Your task to perform on an android device: Search for Mexican restaurants on Maps Image 0: 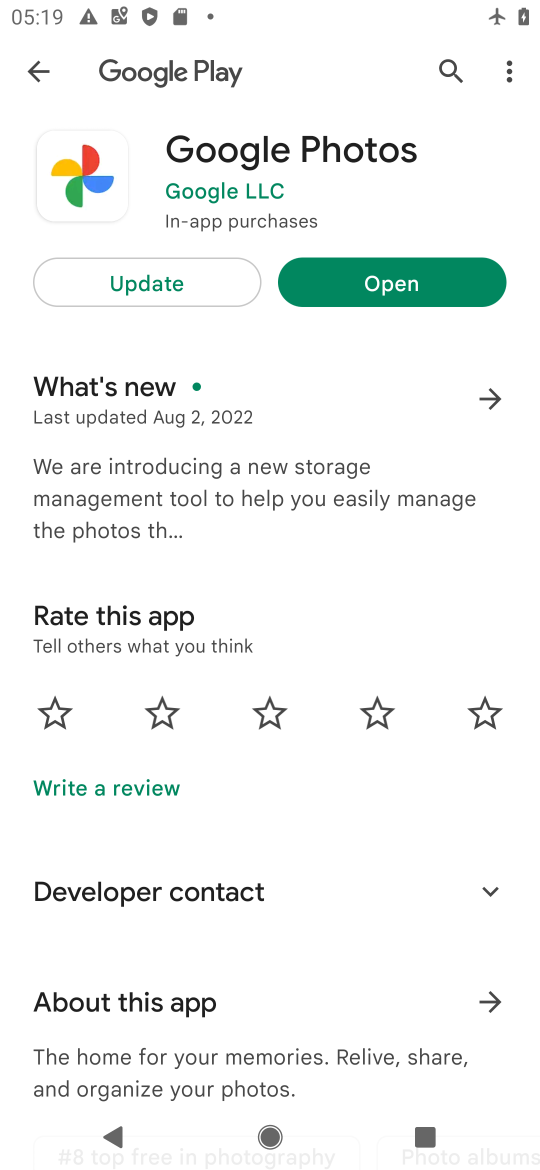
Step 0: press home button
Your task to perform on an android device: Search for Mexican restaurants on Maps Image 1: 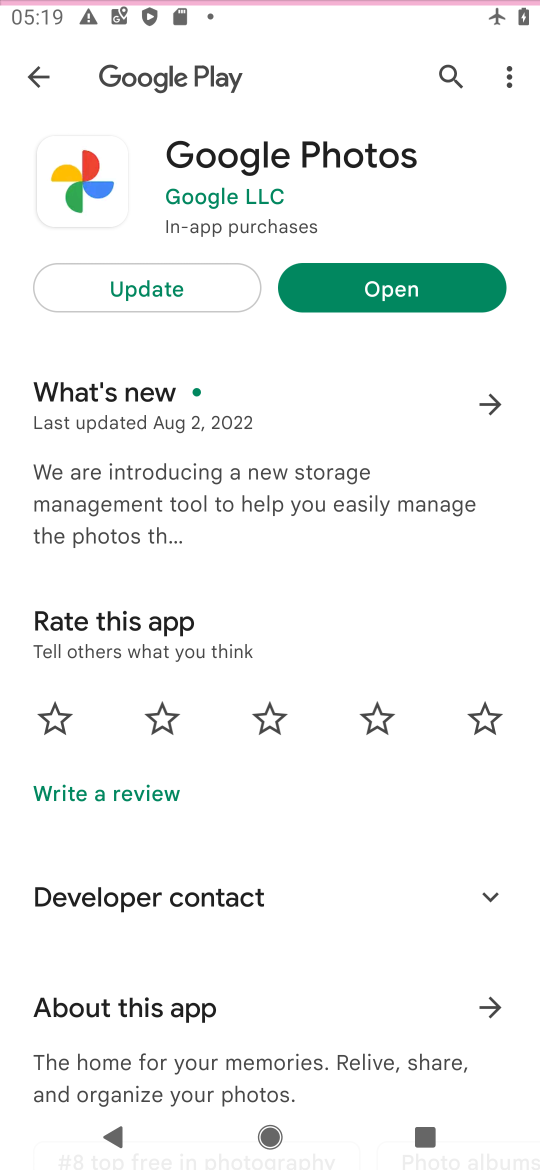
Step 1: press back button
Your task to perform on an android device: Search for Mexican restaurants on Maps Image 2: 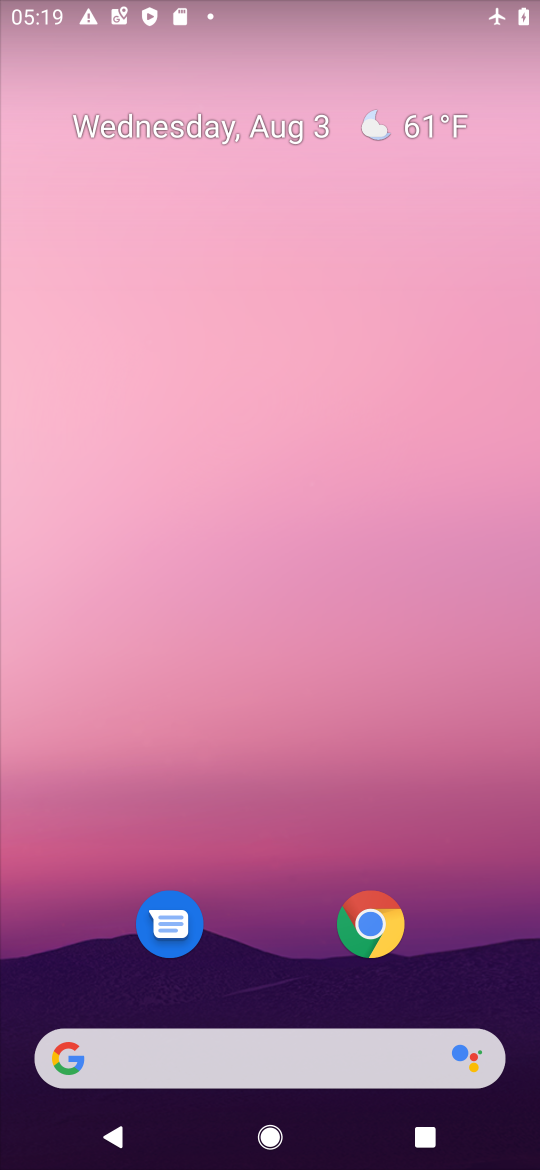
Step 2: press home button
Your task to perform on an android device: Search for Mexican restaurants on Maps Image 3: 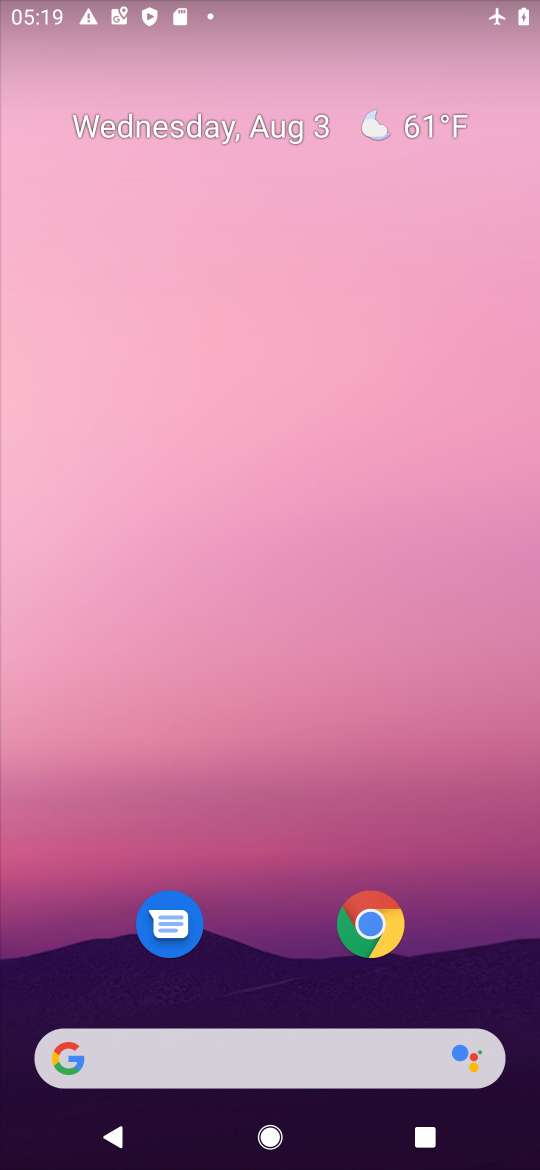
Step 3: press home button
Your task to perform on an android device: Search for Mexican restaurants on Maps Image 4: 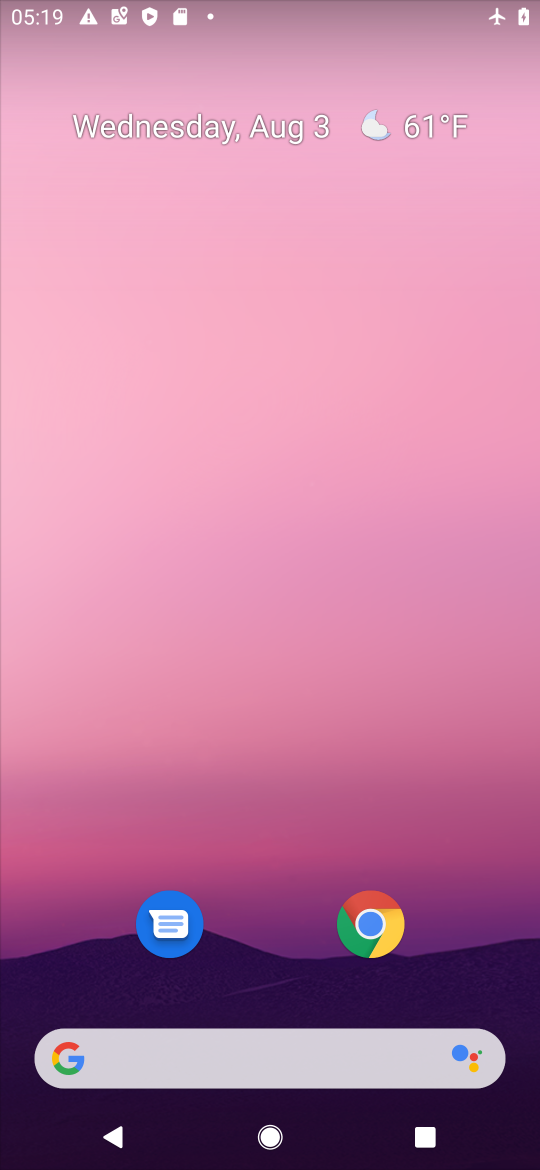
Step 4: drag from (261, 857) to (261, 290)
Your task to perform on an android device: Search for Mexican restaurants on Maps Image 5: 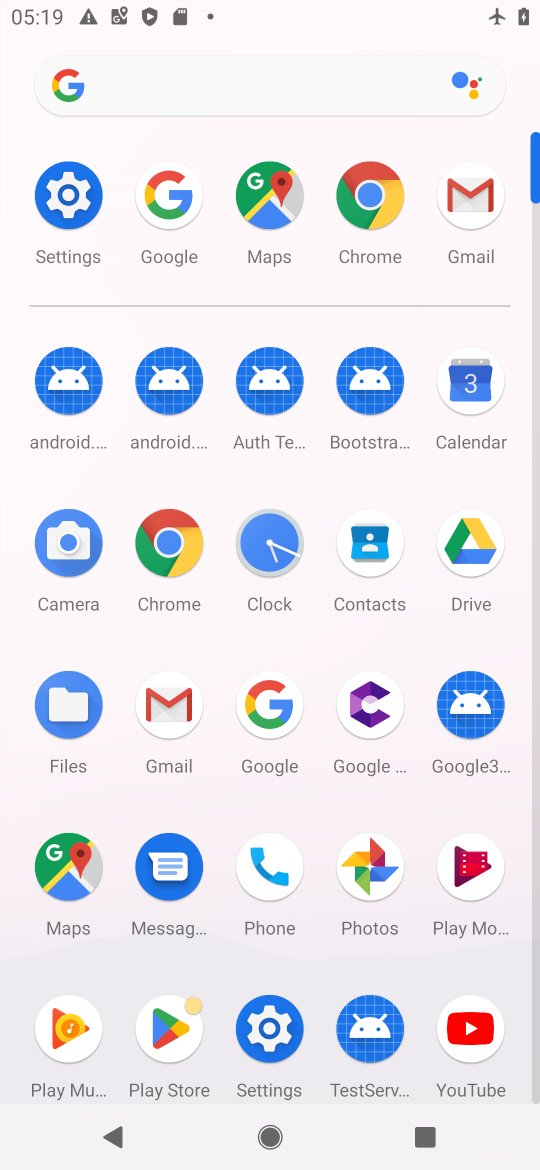
Step 5: click (255, 231)
Your task to perform on an android device: Search for Mexican restaurants on Maps Image 6: 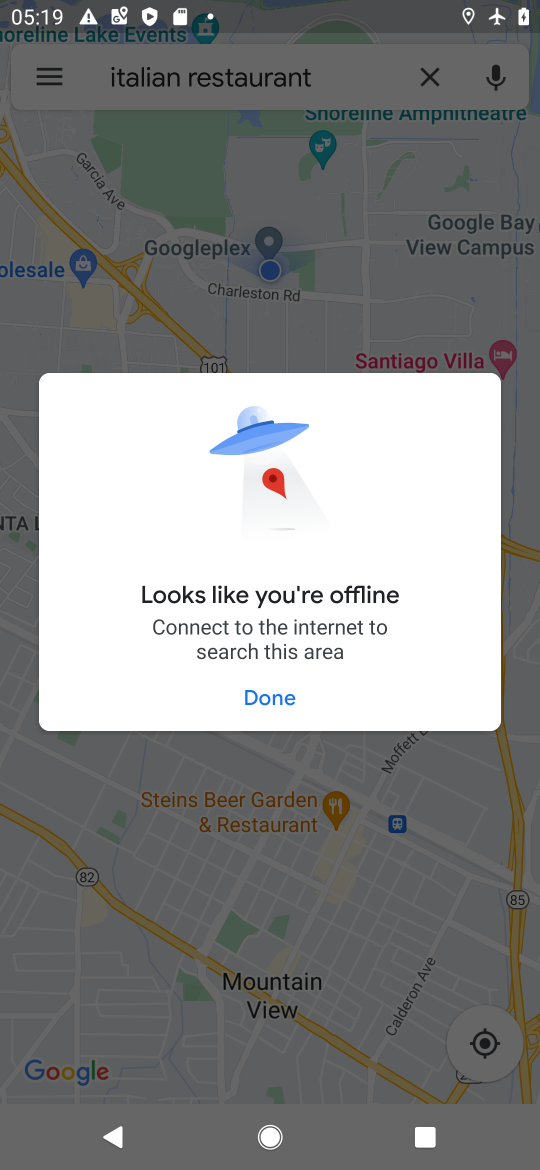
Step 6: click (288, 98)
Your task to perform on an android device: Search for Mexican restaurants on Maps Image 7: 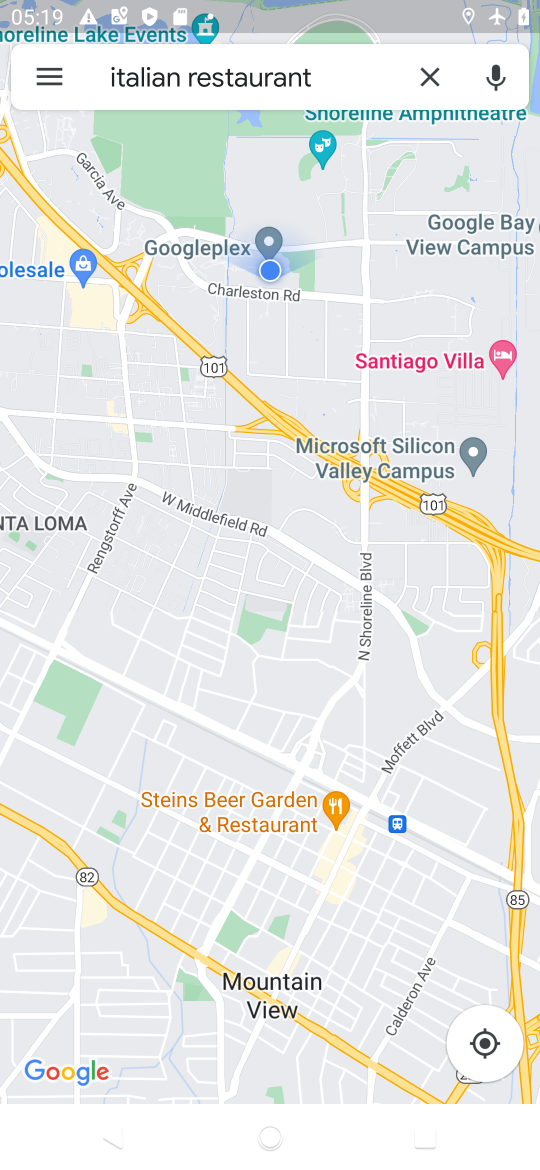
Step 7: click (418, 80)
Your task to perform on an android device: Search for Mexican restaurants on Maps Image 8: 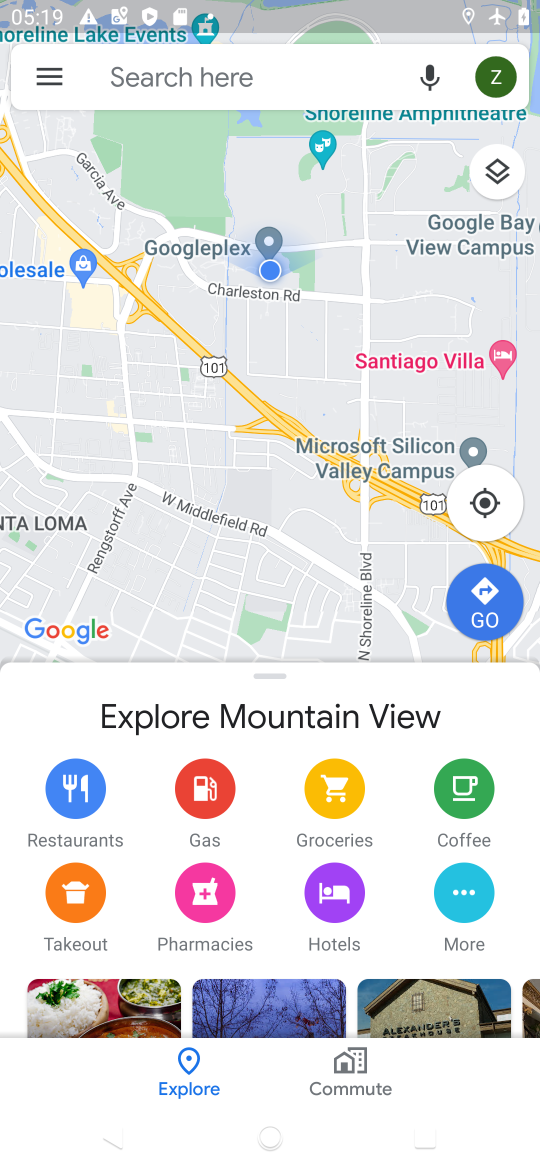
Step 8: click (216, 90)
Your task to perform on an android device: Search for Mexican restaurants on Maps Image 9: 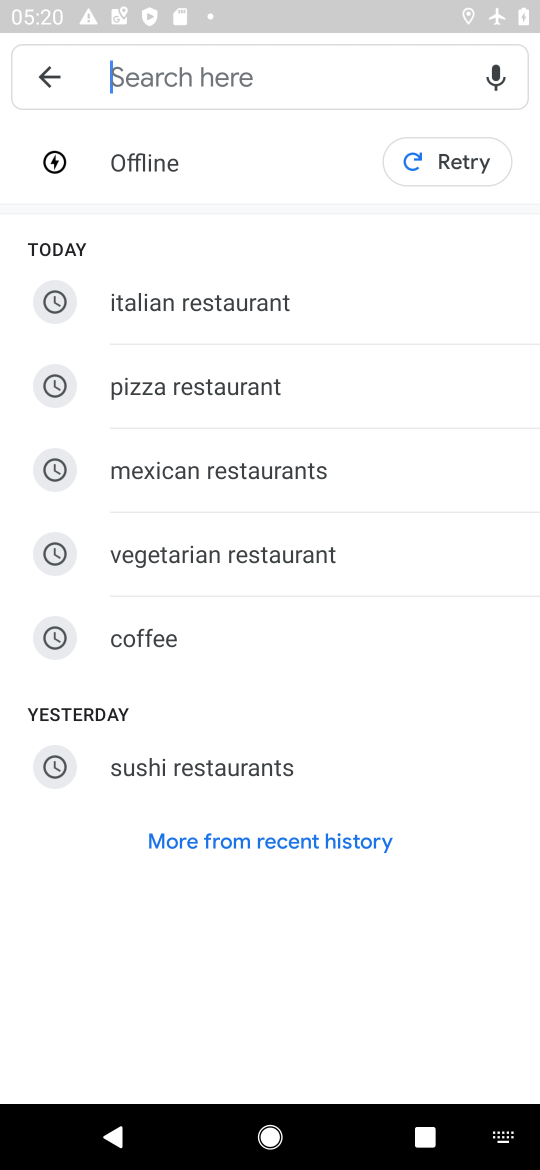
Step 9: click (282, 476)
Your task to perform on an android device: Search for Mexican restaurants on Maps Image 10: 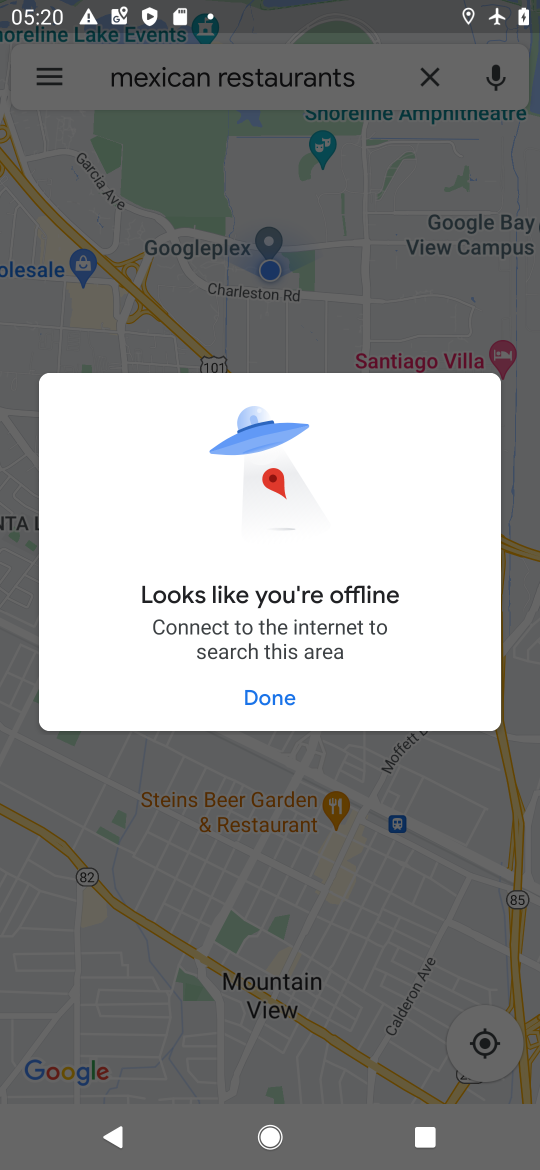
Step 10: task complete